Your task to perform on an android device: turn on sleep mode Image 0: 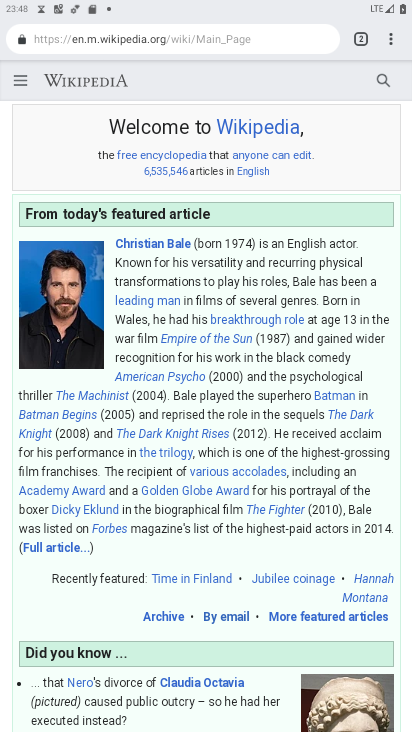
Step 0: press home button
Your task to perform on an android device: turn on sleep mode Image 1: 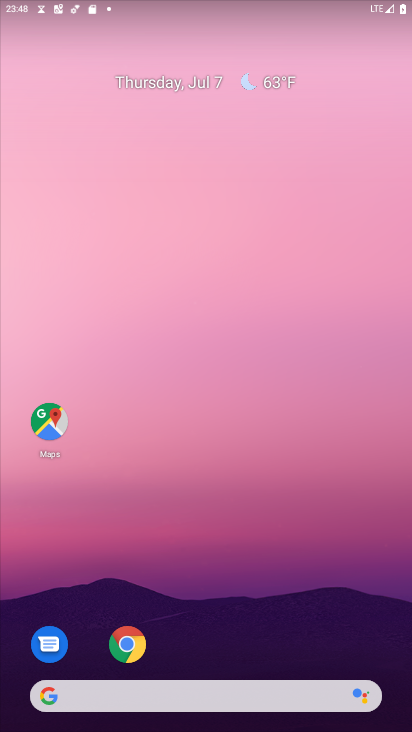
Step 1: drag from (226, 730) to (210, 175)
Your task to perform on an android device: turn on sleep mode Image 2: 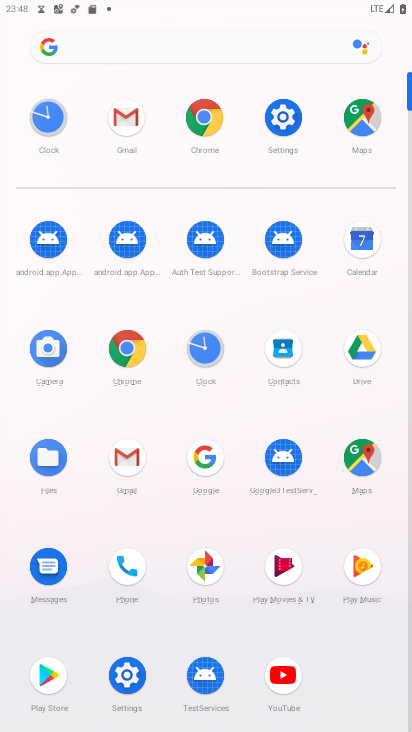
Step 2: click (289, 111)
Your task to perform on an android device: turn on sleep mode Image 3: 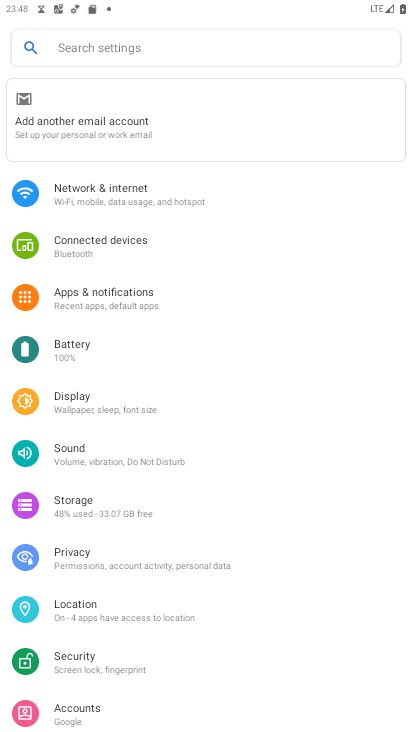
Step 3: click (124, 403)
Your task to perform on an android device: turn on sleep mode Image 4: 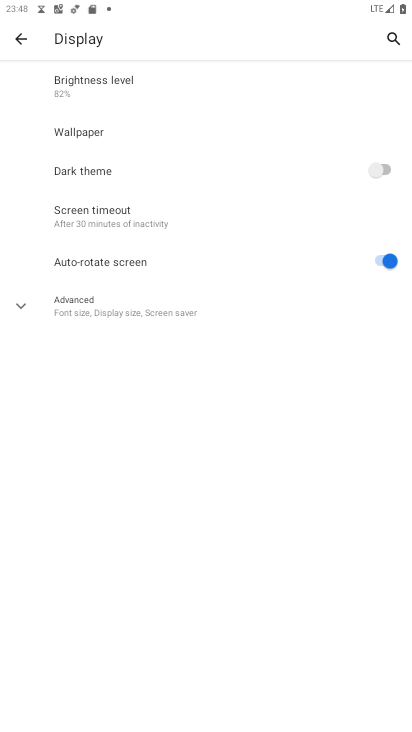
Step 4: task complete